Your task to perform on an android device: all mails in gmail Image 0: 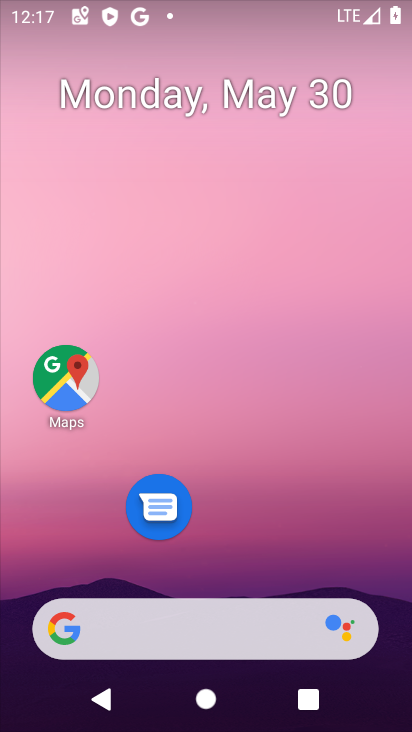
Step 0: drag from (284, 520) to (307, 56)
Your task to perform on an android device: all mails in gmail Image 1: 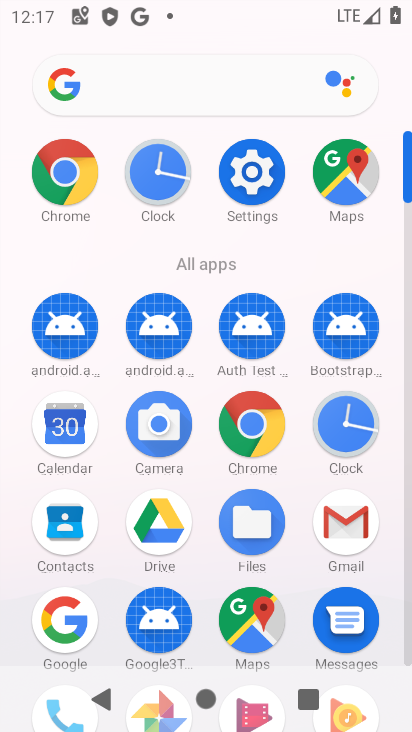
Step 1: click (341, 513)
Your task to perform on an android device: all mails in gmail Image 2: 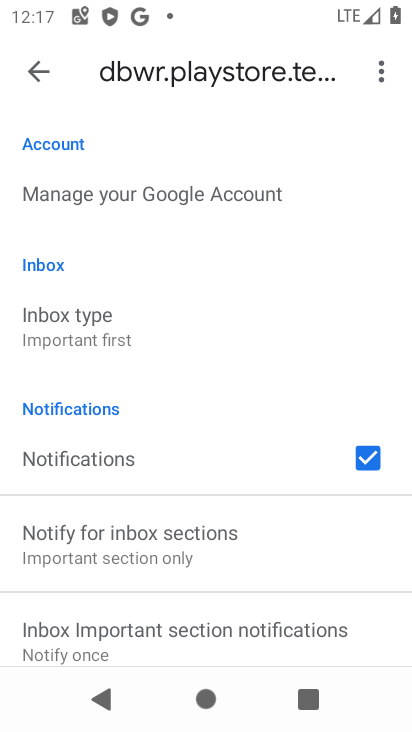
Step 2: click (31, 69)
Your task to perform on an android device: all mails in gmail Image 3: 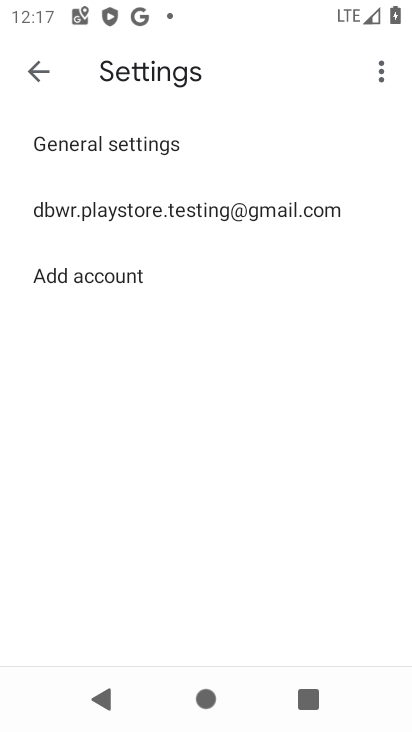
Step 3: click (37, 71)
Your task to perform on an android device: all mails in gmail Image 4: 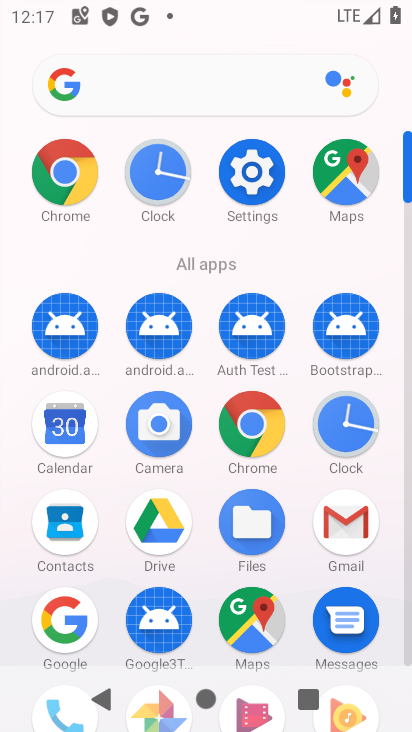
Step 4: click (350, 510)
Your task to perform on an android device: all mails in gmail Image 5: 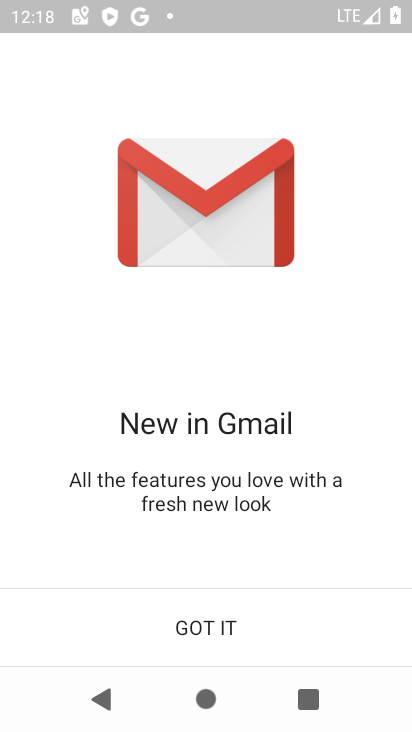
Step 5: click (266, 624)
Your task to perform on an android device: all mails in gmail Image 6: 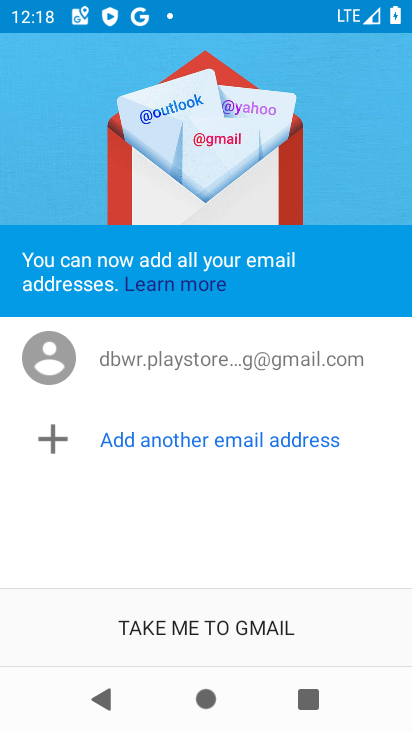
Step 6: click (266, 624)
Your task to perform on an android device: all mails in gmail Image 7: 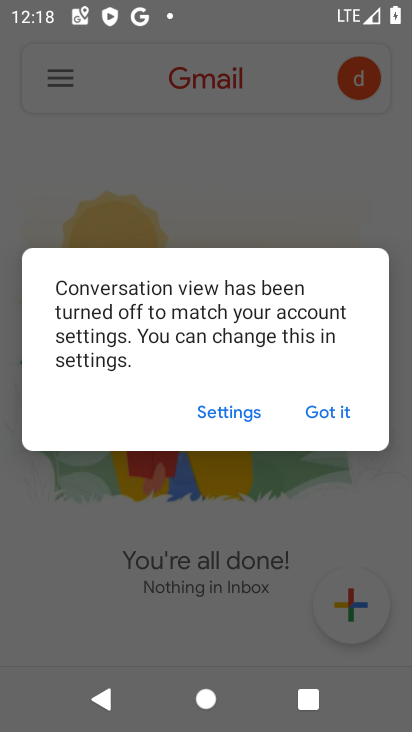
Step 7: click (325, 411)
Your task to perform on an android device: all mails in gmail Image 8: 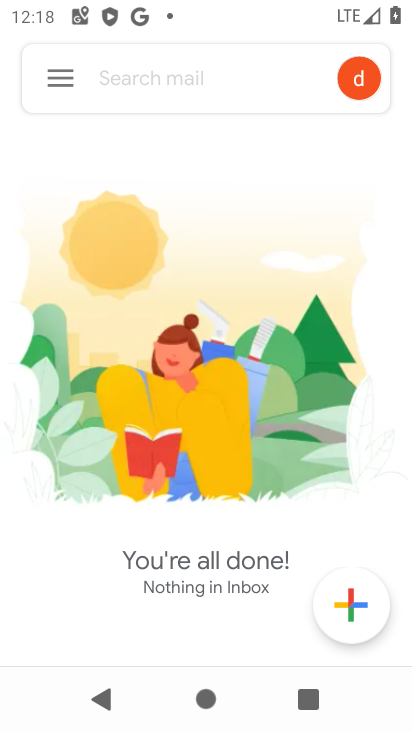
Step 8: click (61, 79)
Your task to perform on an android device: all mails in gmail Image 9: 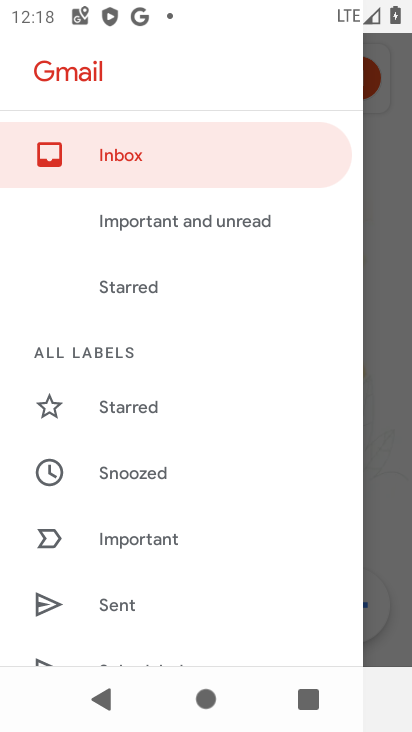
Step 9: drag from (187, 525) to (243, 192)
Your task to perform on an android device: all mails in gmail Image 10: 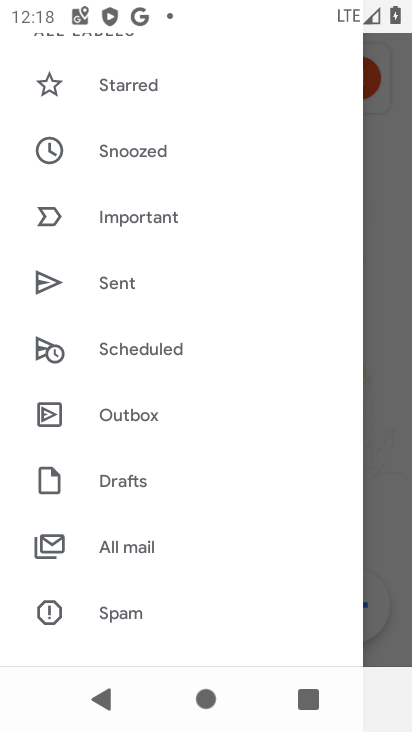
Step 10: click (143, 545)
Your task to perform on an android device: all mails in gmail Image 11: 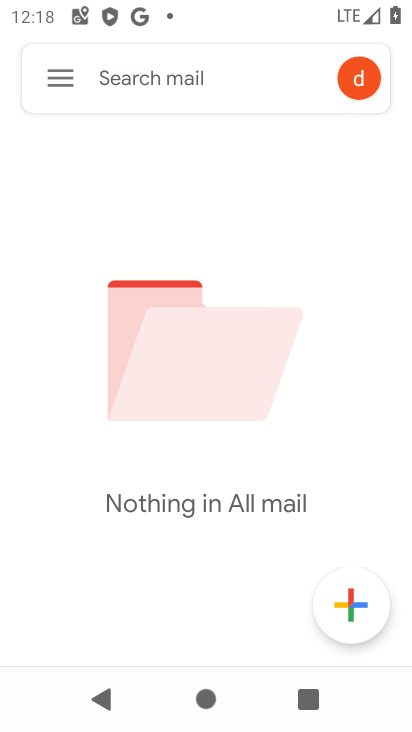
Step 11: task complete